Your task to perform on an android device: Open battery settings Image 0: 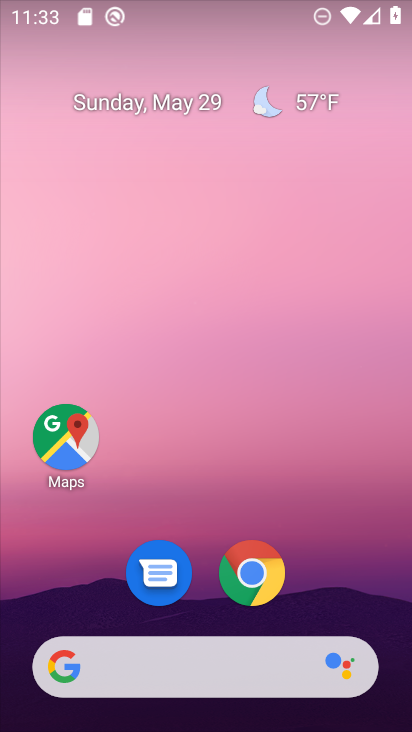
Step 0: drag from (297, 626) to (331, 52)
Your task to perform on an android device: Open battery settings Image 1: 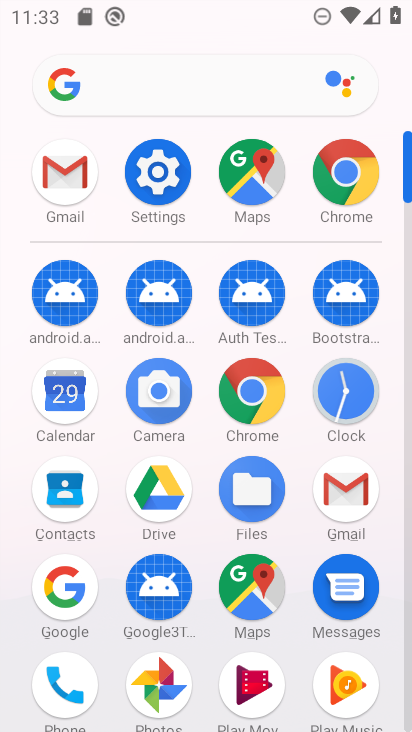
Step 1: click (171, 174)
Your task to perform on an android device: Open battery settings Image 2: 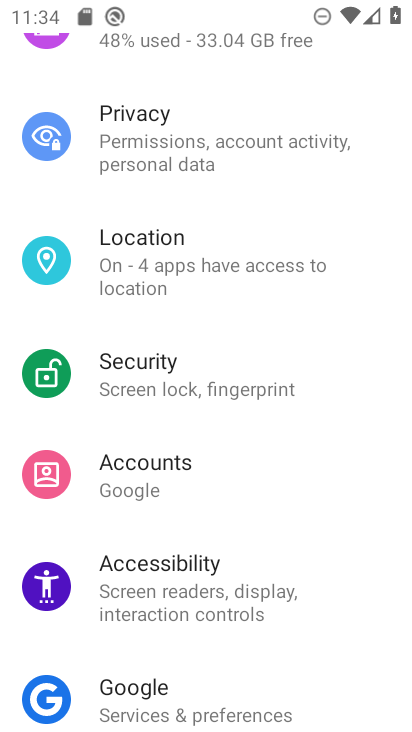
Step 2: drag from (178, 327) to (240, 730)
Your task to perform on an android device: Open battery settings Image 3: 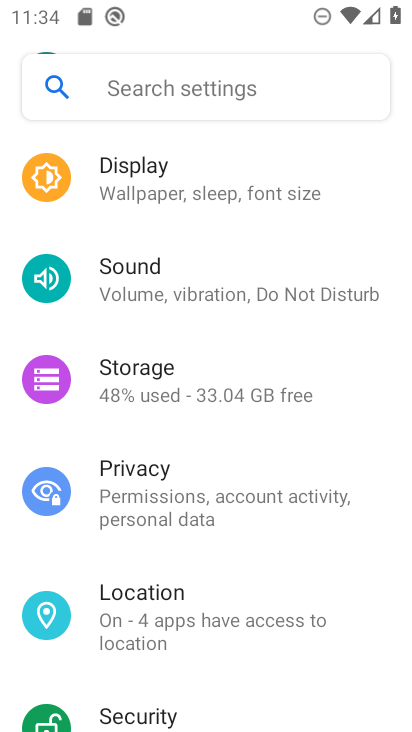
Step 3: drag from (238, 339) to (220, 698)
Your task to perform on an android device: Open battery settings Image 4: 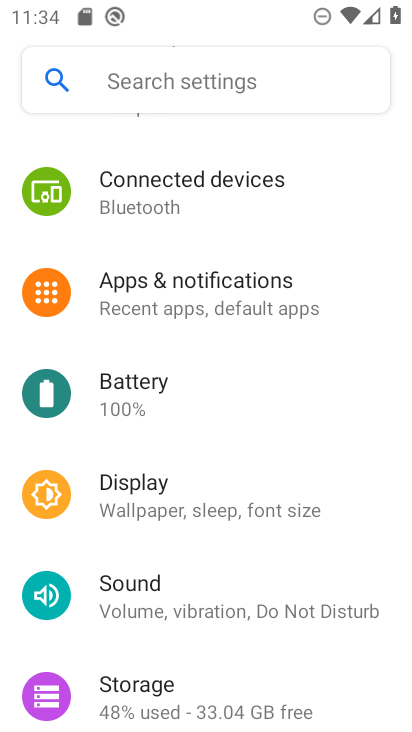
Step 4: click (179, 391)
Your task to perform on an android device: Open battery settings Image 5: 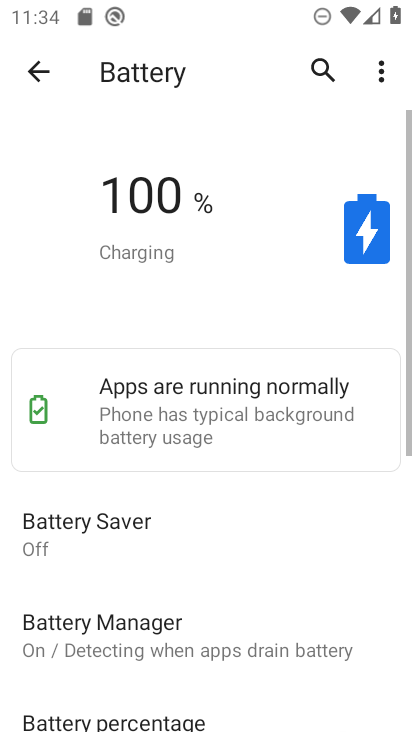
Step 5: task complete